Your task to perform on an android device: turn pop-ups off in chrome Image 0: 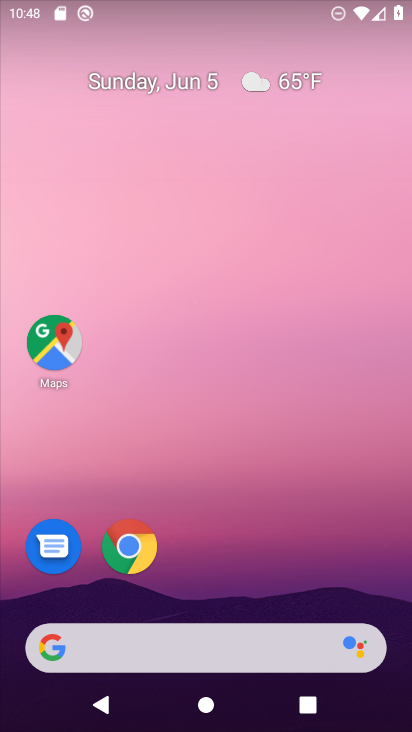
Step 0: click (253, 187)
Your task to perform on an android device: turn pop-ups off in chrome Image 1: 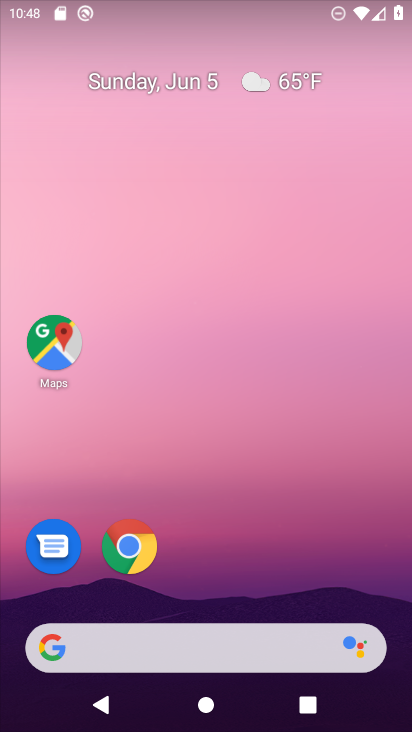
Step 1: drag from (161, 600) to (273, 90)
Your task to perform on an android device: turn pop-ups off in chrome Image 2: 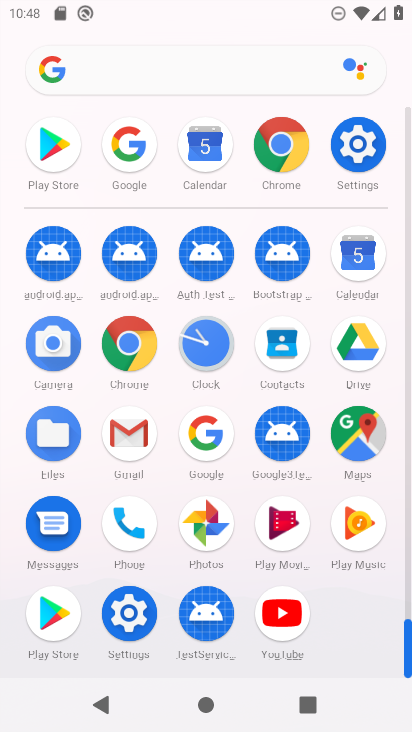
Step 2: click (122, 332)
Your task to perform on an android device: turn pop-ups off in chrome Image 3: 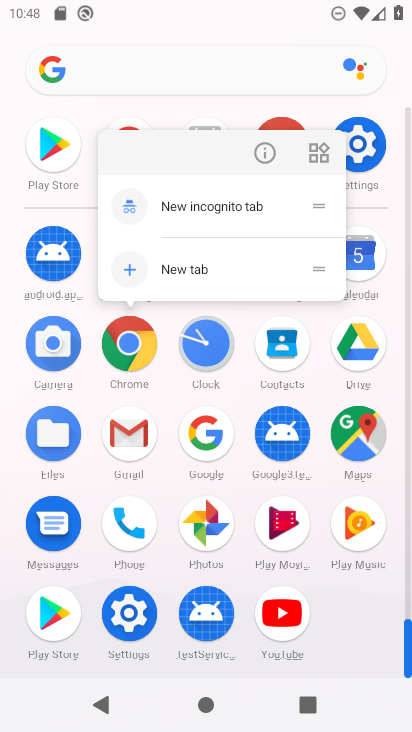
Step 3: click (270, 160)
Your task to perform on an android device: turn pop-ups off in chrome Image 4: 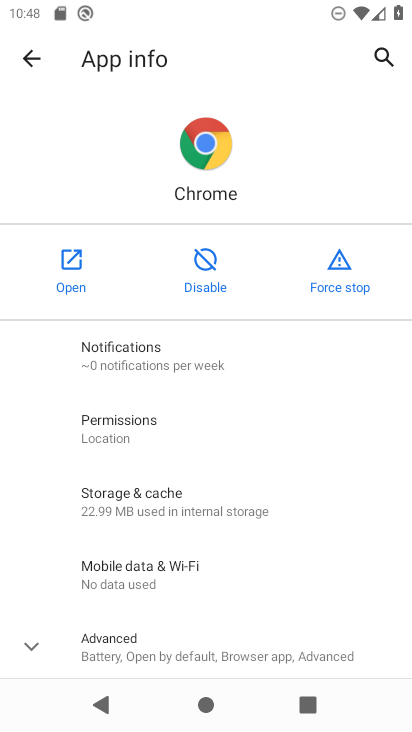
Step 4: click (66, 277)
Your task to perform on an android device: turn pop-ups off in chrome Image 5: 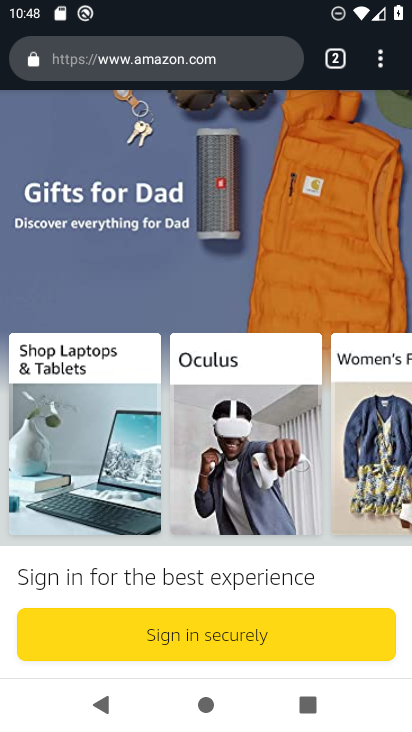
Step 5: drag from (216, 550) to (271, 181)
Your task to perform on an android device: turn pop-ups off in chrome Image 6: 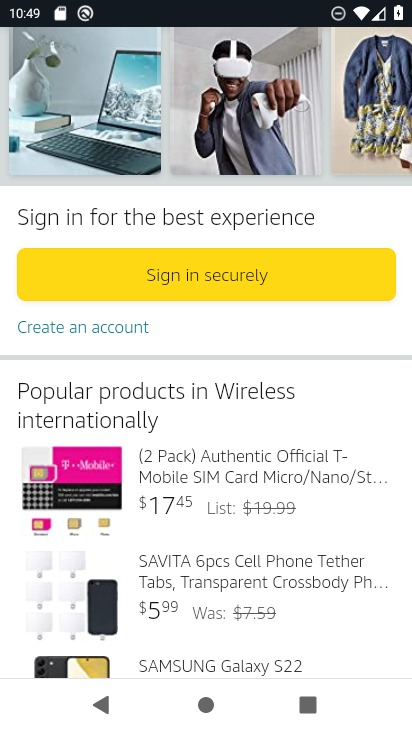
Step 6: drag from (246, 612) to (299, 156)
Your task to perform on an android device: turn pop-ups off in chrome Image 7: 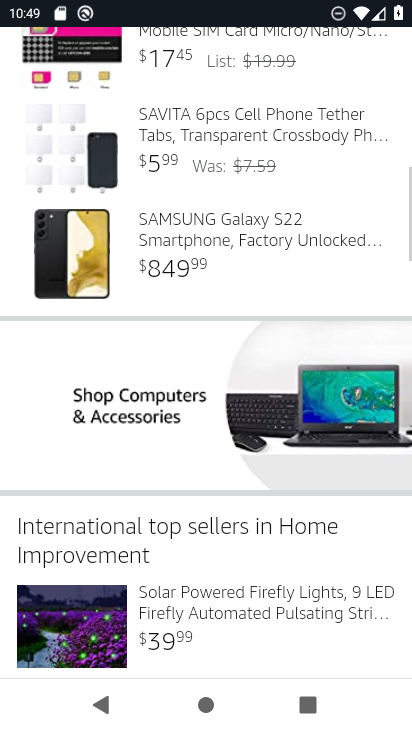
Step 7: drag from (263, 185) to (342, 724)
Your task to perform on an android device: turn pop-ups off in chrome Image 8: 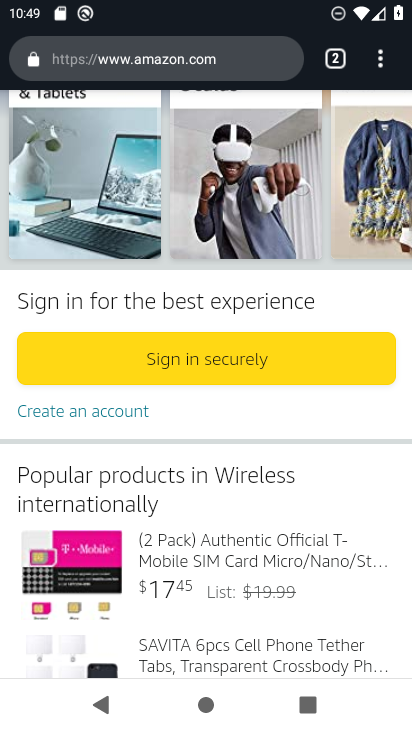
Step 8: drag from (267, 219) to (349, 729)
Your task to perform on an android device: turn pop-ups off in chrome Image 9: 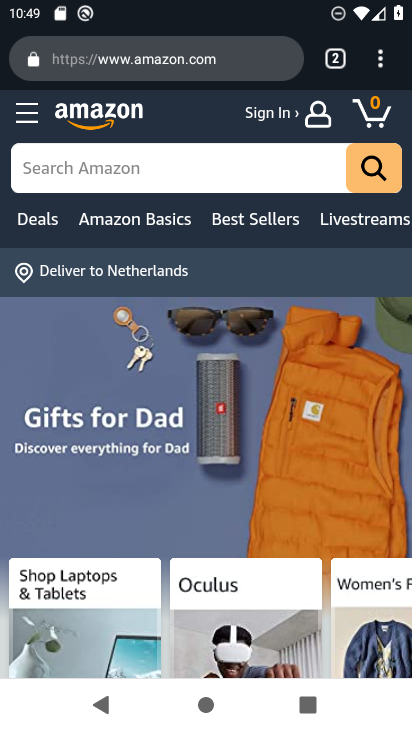
Step 9: click (375, 62)
Your task to perform on an android device: turn pop-ups off in chrome Image 10: 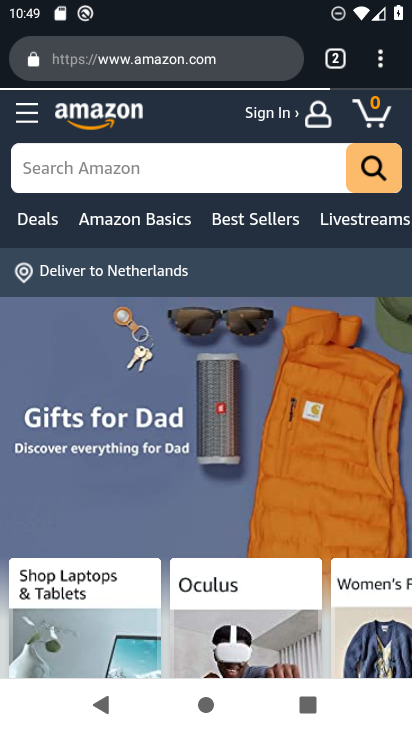
Step 10: drag from (386, 46) to (200, 567)
Your task to perform on an android device: turn pop-ups off in chrome Image 11: 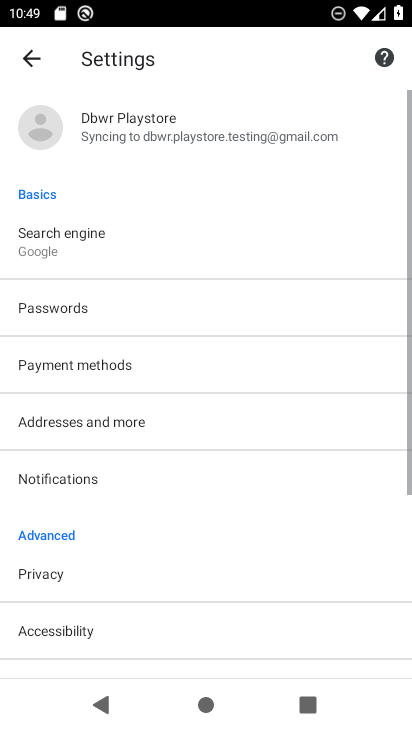
Step 11: drag from (146, 542) to (336, 5)
Your task to perform on an android device: turn pop-ups off in chrome Image 12: 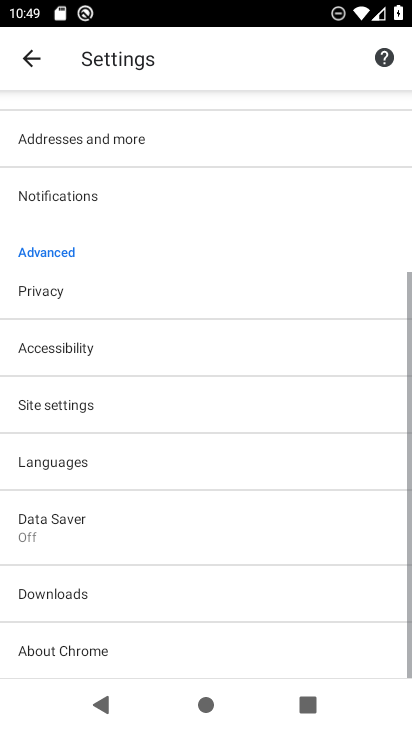
Step 12: click (92, 404)
Your task to perform on an android device: turn pop-ups off in chrome Image 13: 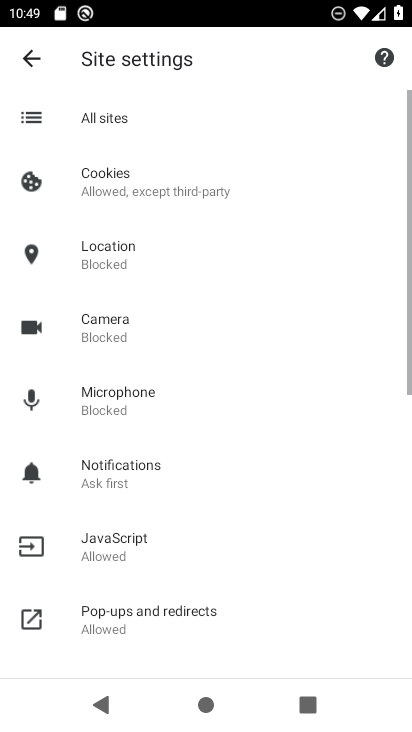
Step 13: drag from (96, 397) to (204, 151)
Your task to perform on an android device: turn pop-ups off in chrome Image 14: 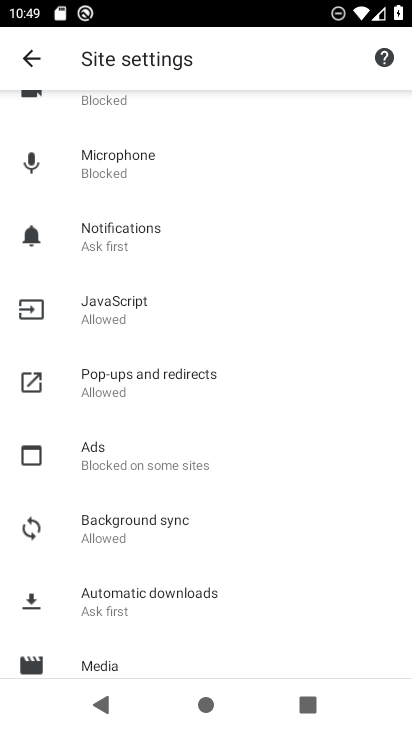
Step 14: click (170, 382)
Your task to perform on an android device: turn pop-ups off in chrome Image 15: 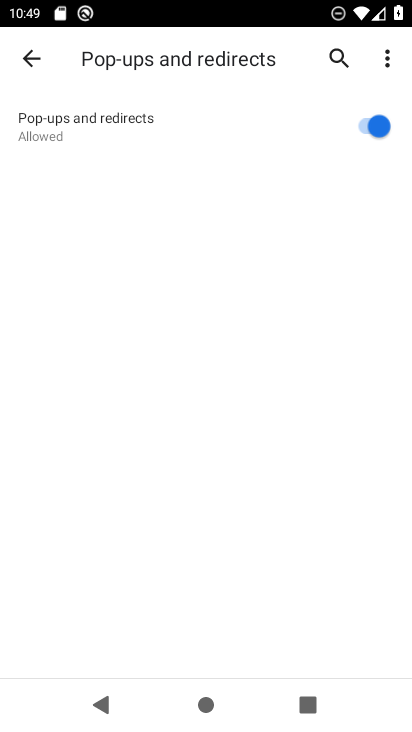
Step 15: click (380, 111)
Your task to perform on an android device: turn pop-ups off in chrome Image 16: 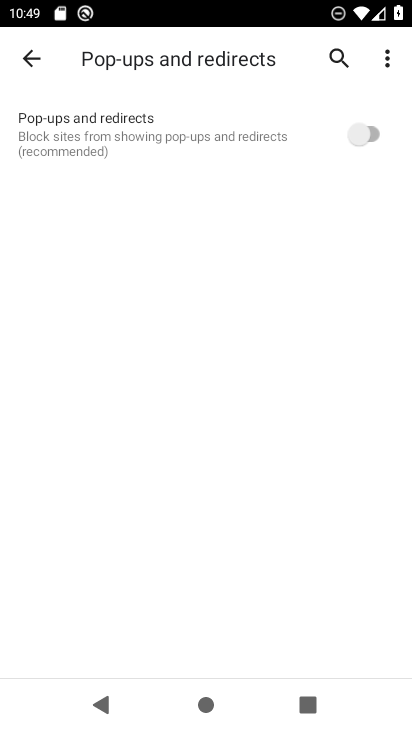
Step 16: task complete